Your task to perform on an android device: turn off sleep mode Image 0: 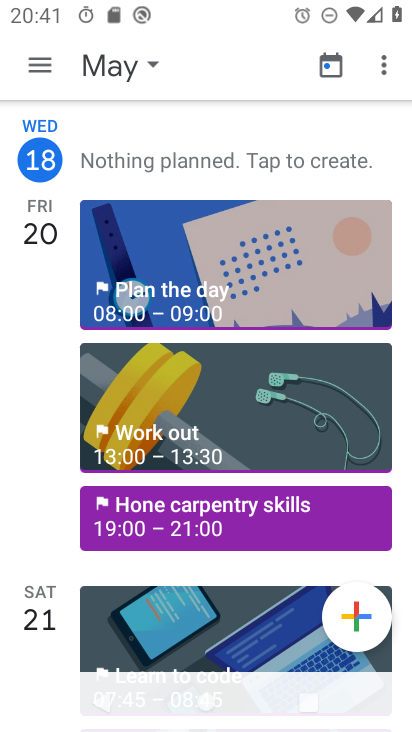
Step 0: press home button
Your task to perform on an android device: turn off sleep mode Image 1: 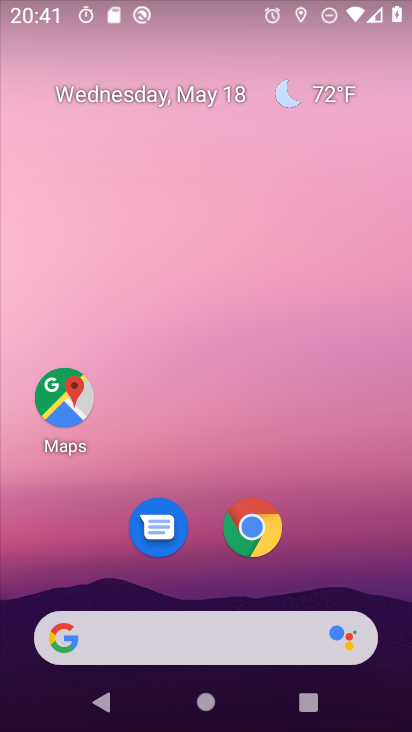
Step 1: drag from (393, 653) to (356, 250)
Your task to perform on an android device: turn off sleep mode Image 2: 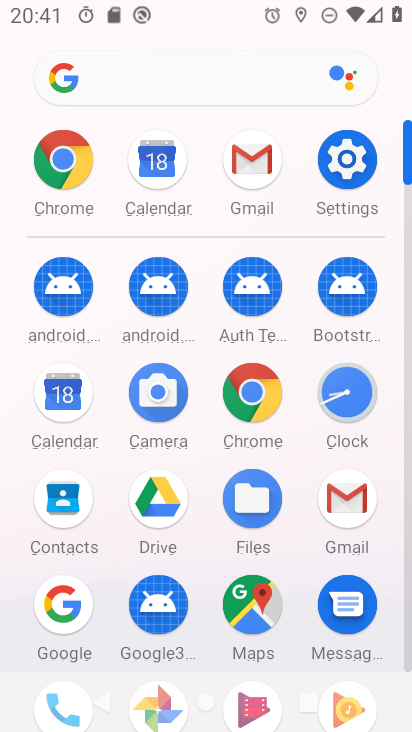
Step 2: click (338, 160)
Your task to perform on an android device: turn off sleep mode Image 3: 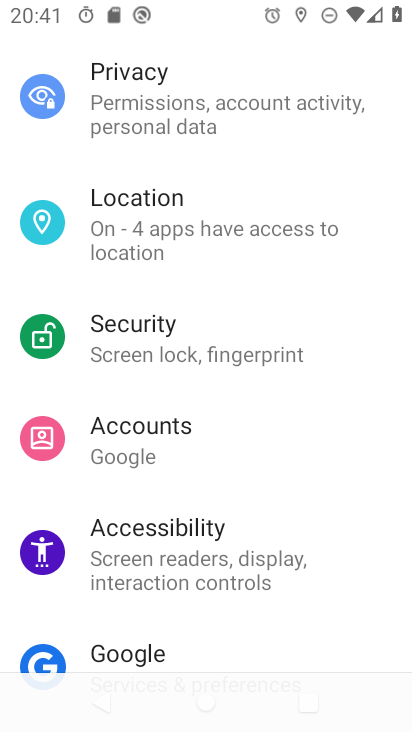
Step 3: drag from (335, 67) to (411, 549)
Your task to perform on an android device: turn off sleep mode Image 4: 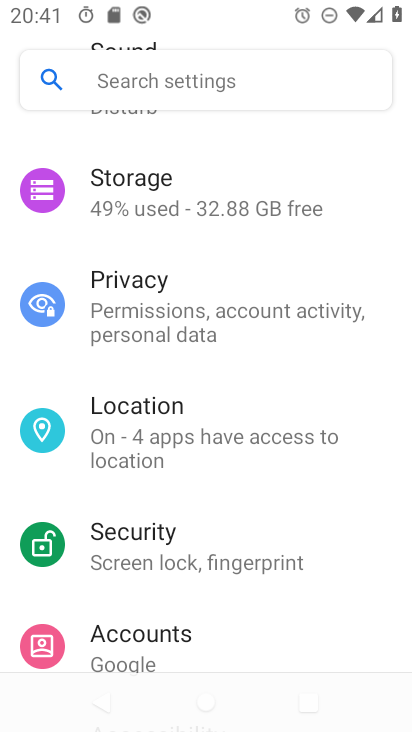
Step 4: drag from (347, 166) to (307, 591)
Your task to perform on an android device: turn off sleep mode Image 5: 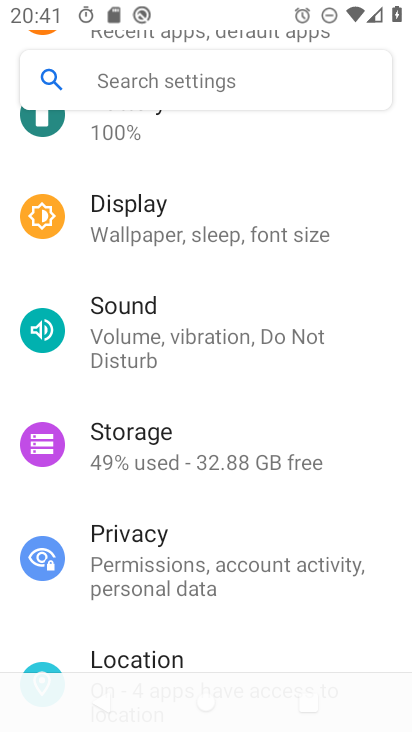
Step 5: click (152, 209)
Your task to perform on an android device: turn off sleep mode Image 6: 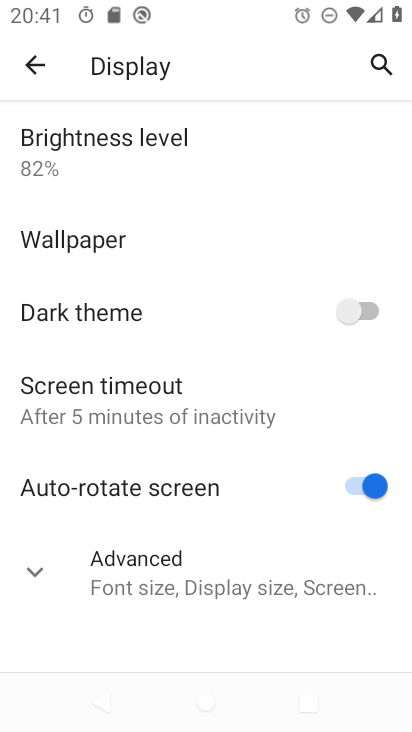
Step 6: click (114, 404)
Your task to perform on an android device: turn off sleep mode Image 7: 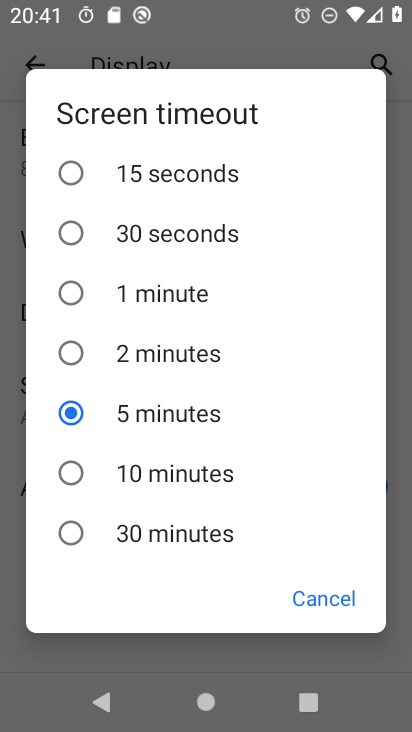
Step 7: task complete